Your task to perform on an android device: Check the weather Image 0: 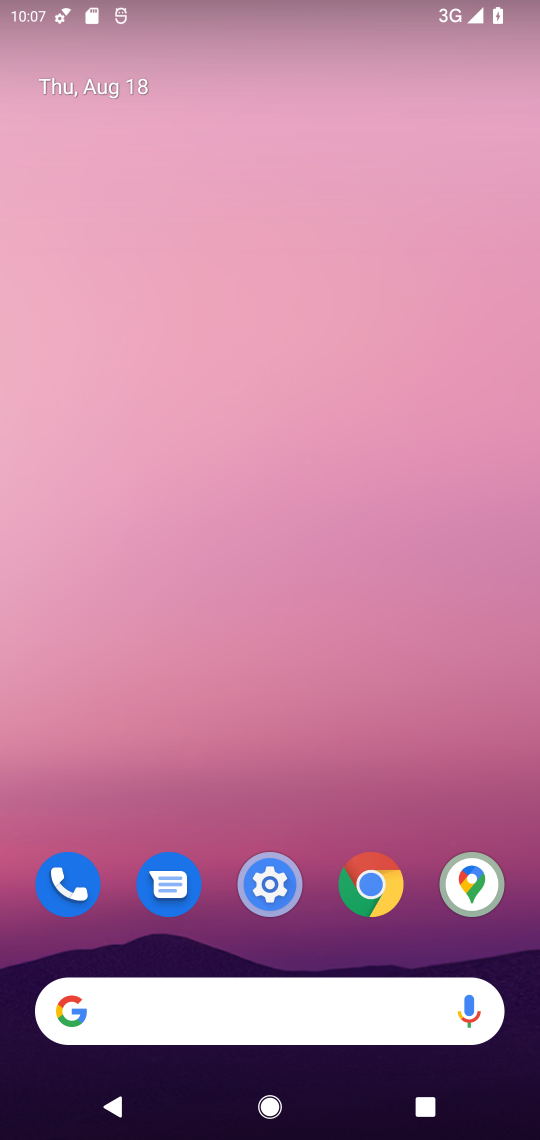
Step 0: click (351, 981)
Your task to perform on an android device: Check the weather Image 1: 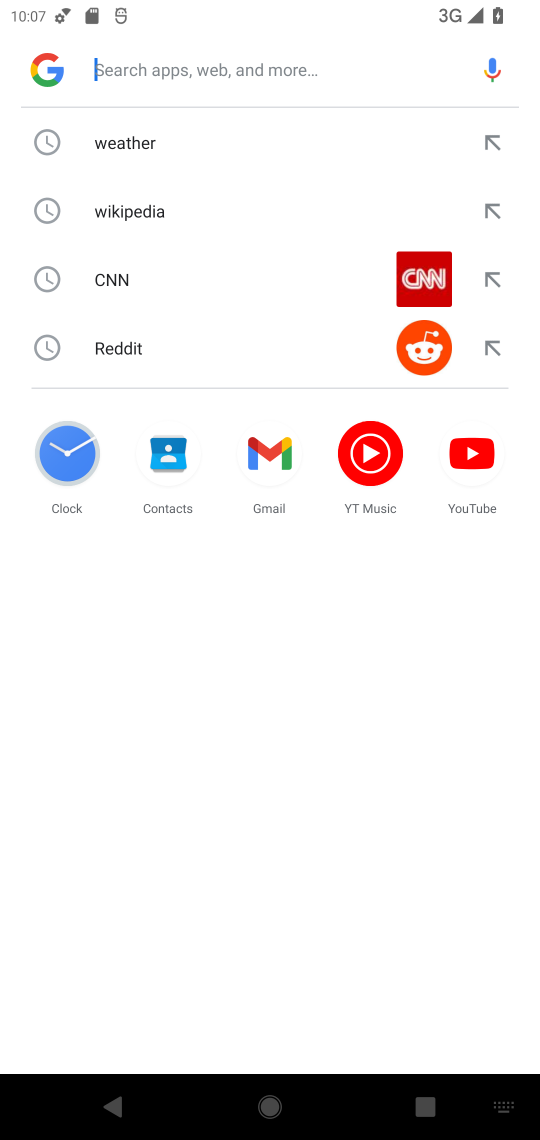
Step 1: click (193, 129)
Your task to perform on an android device: Check the weather Image 2: 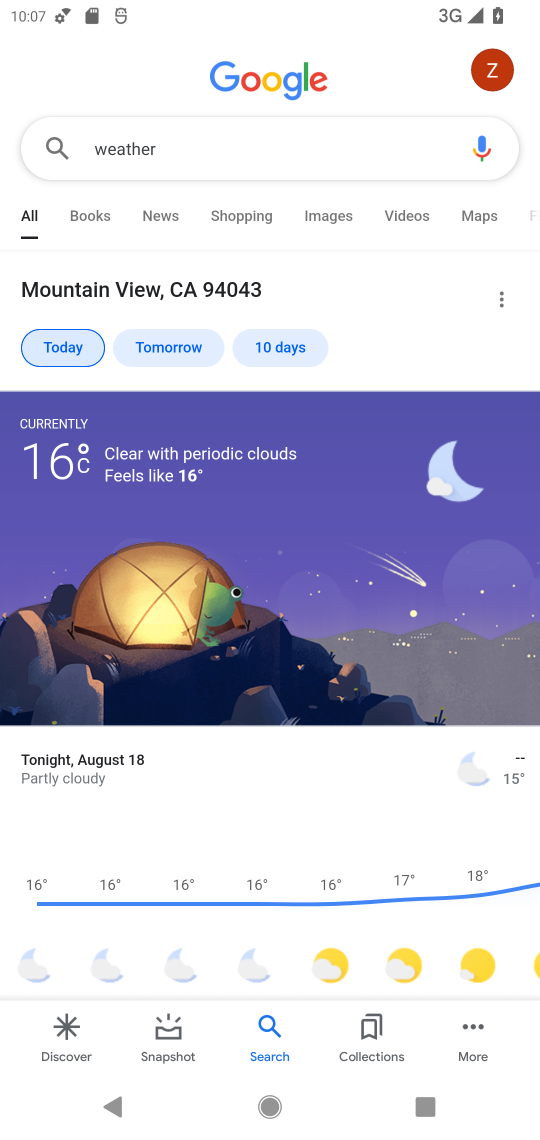
Step 2: task complete